Your task to perform on an android device: Open location settings Image 0: 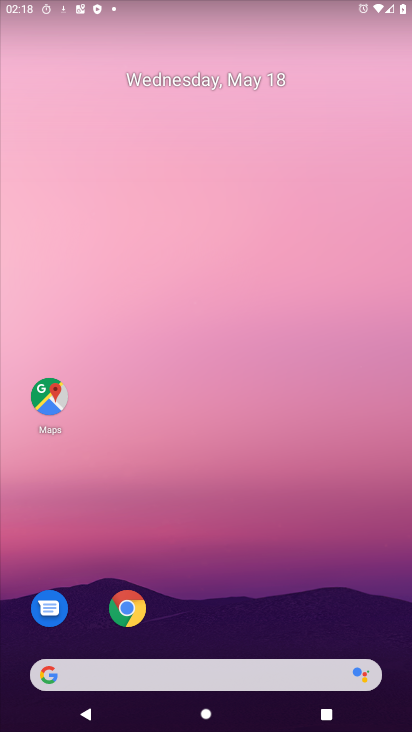
Step 0: drag from (298, 689) to (178, 2)
Your task to perform on an android device: Open location settings Image 1: 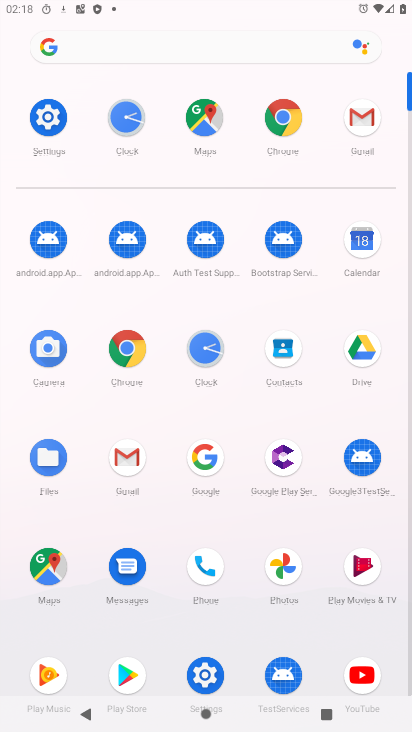
Step 1: click (52, 110)
Your task to perform on an android device: Open location settings Image 2: 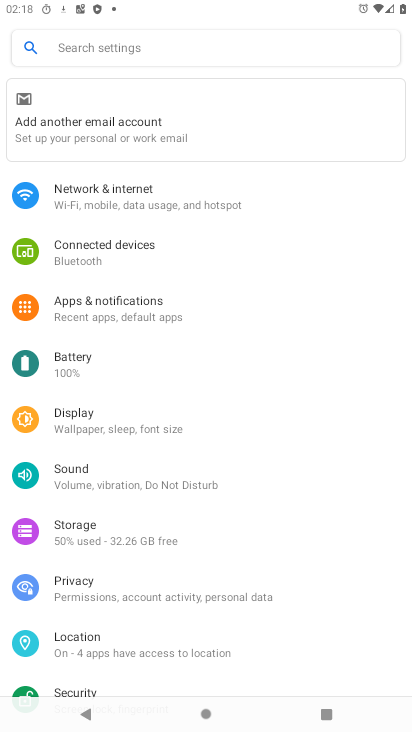
Step 2: click (120, 58)
Your task to perform on an android device: Open location settings Image 3: 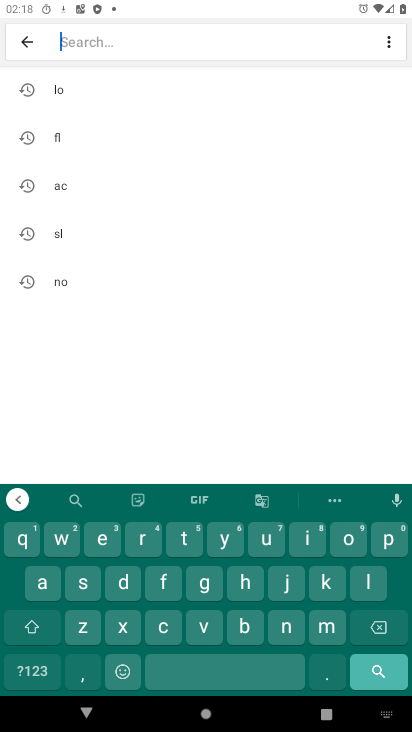
Step 3: click (78, 90)
Your task to perform on an android device: Open location settings Image 4: 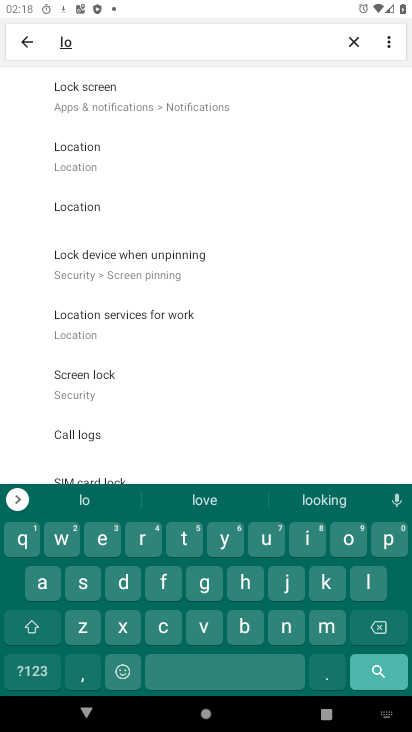
Step 4: click (79, 152)
Your task to perform on an android device: Open location settings Image 5: 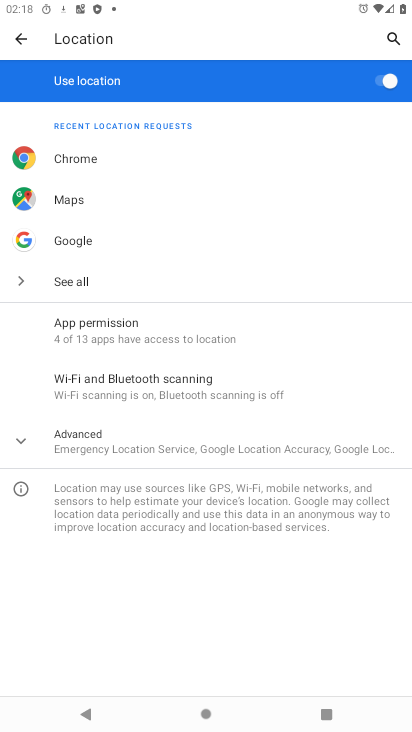
Step 5: click (17, 440)
Your task to perform on an android device: Open location settings Image 6: 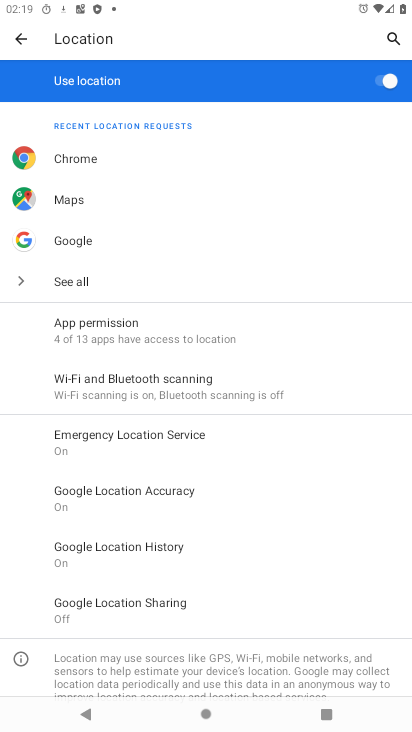
Step 6: task complete